Your task to perform on an android device: toggle wifi Image 0: 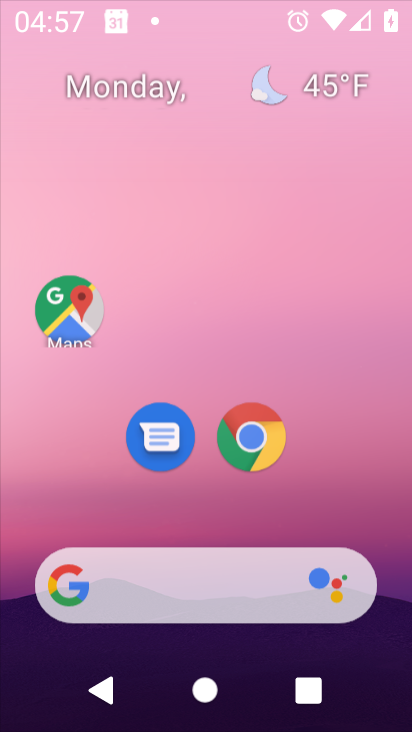
Step 0: drag from (183, 384) to (232, 57)
Your task to perform on an android device: toggle wifi Image 1: 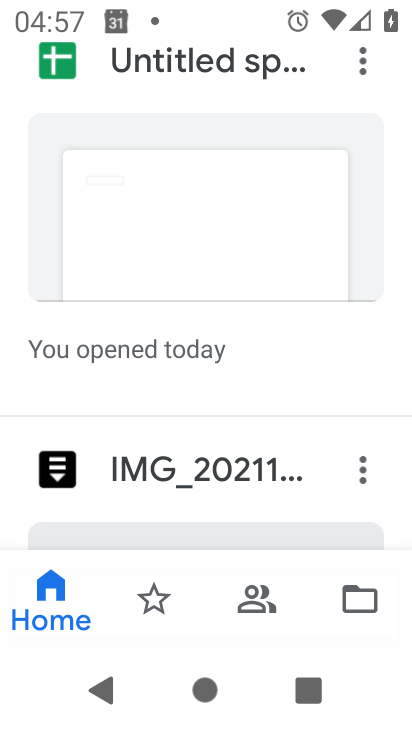
Step 1: press home button
Your task to perform on an android device: toggle wifi Image 2: 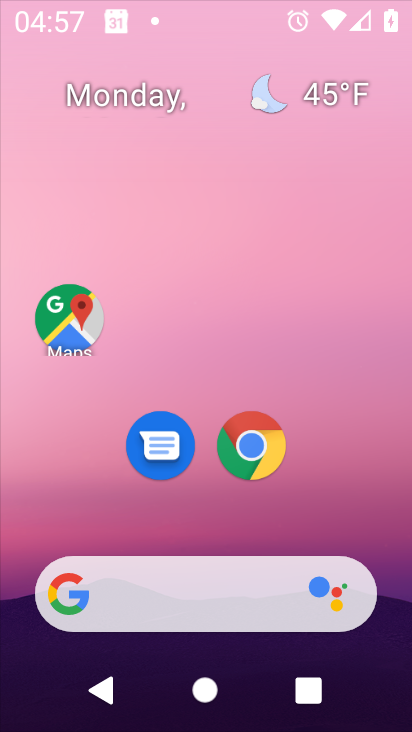
Step 2: drag from (218, 505) to (291, 26)
Your task to perform on an android device: toggle wifi Image 3: 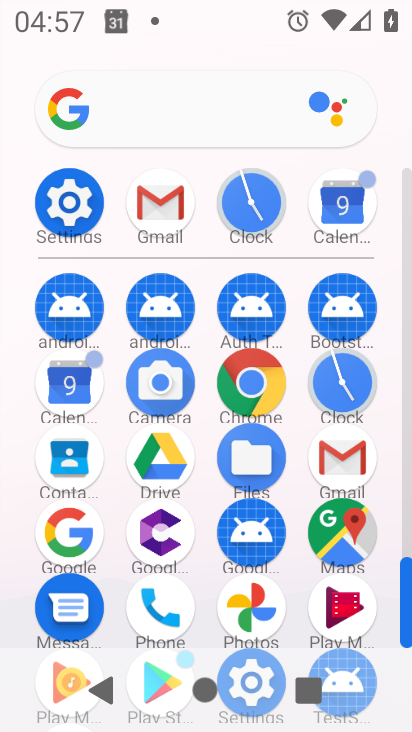
Step 3: click (76, 196)
Your task to perform on an android device: toggle wifi Image 4: 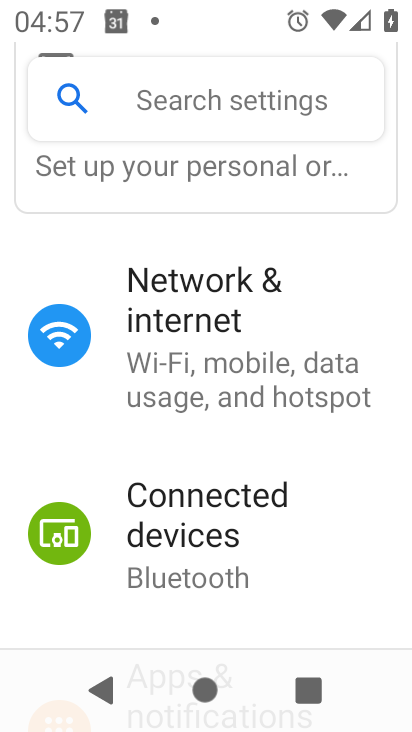
Step 4: click (237, 294)
Your task to perform on an android device: toggle wifi Image 5: 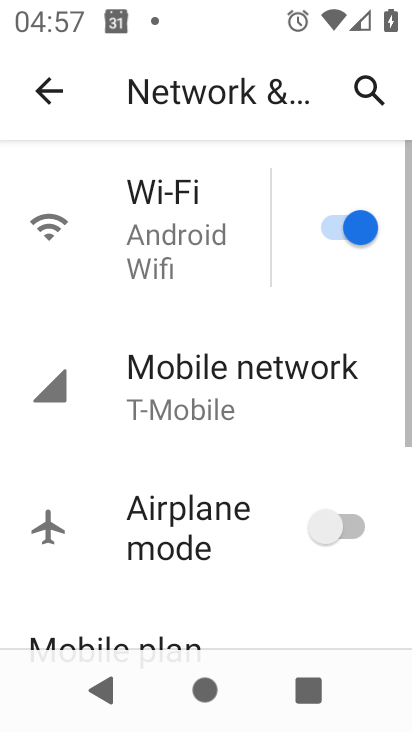
Step 5: click (335, 217)
Your task to perform on an android device: toggle wifi Image 6: 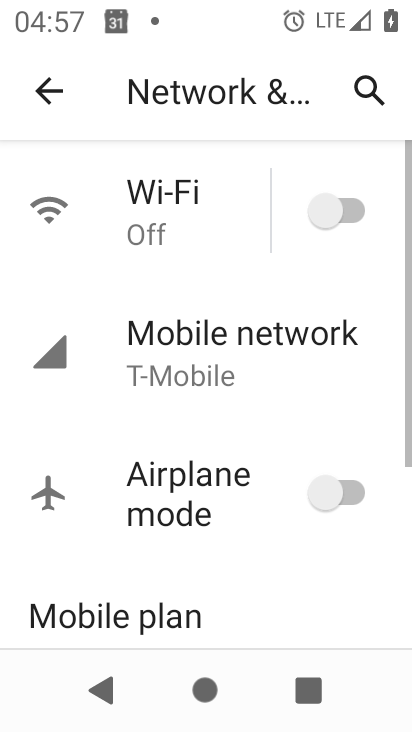
Step 6: task complete